Your task to perform on an android device: Open Google Chrome and open the bookmarks view Image 0: 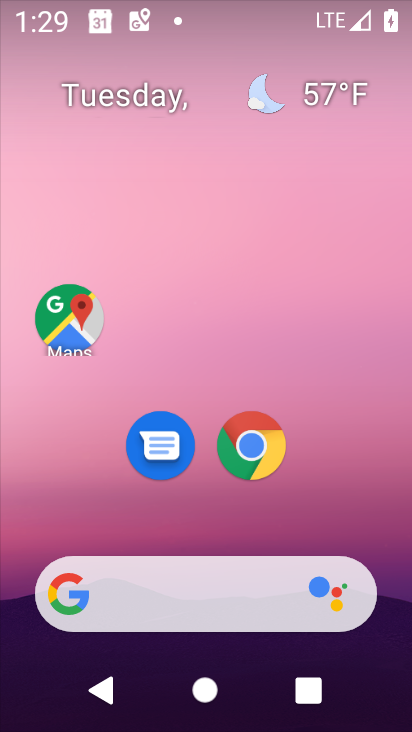
Step 0: drag from (355, 512) to (400, 128)
Your task to perform on an android device: Open Google Chrome and open the bookmarks view Image 1: 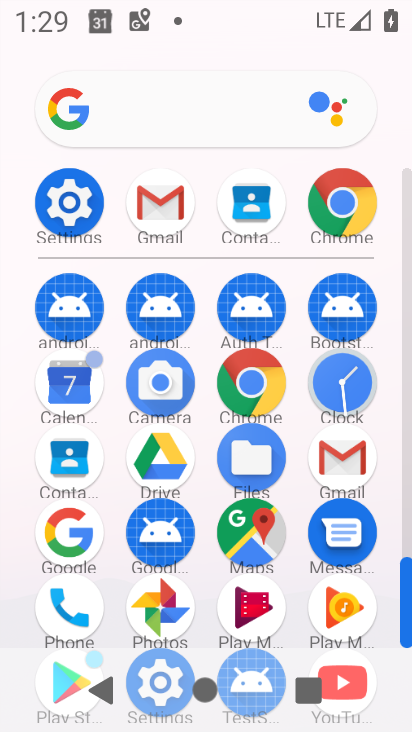
Step 1: click (256, 390)
Your task to perform on an android device: Open Google Chrome and open the bookmarks view Image 2: 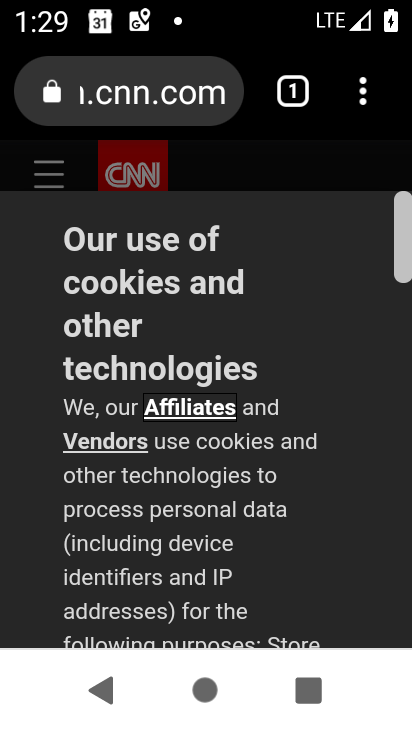
Step 2: click (366, 91)
Your task to perform on an android device: Open Google Chrome and open the bookmarks view Image 3: 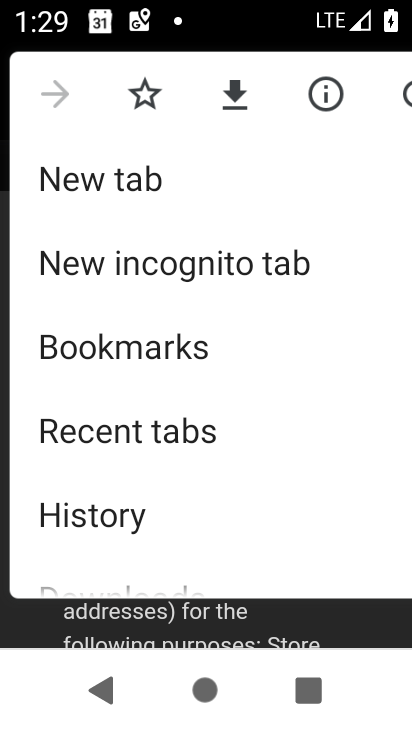
Step 3: click (201, 353)
Your task to perform on an android device: Open Google Chrome and open the bookmarks view Image 4: 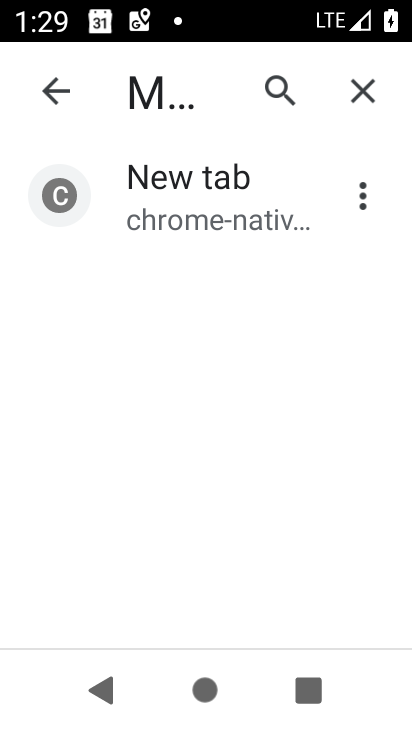
Step 4: task complete